Your task to perform on an android device: remove spam from my inbox in the gmail app Image 0: 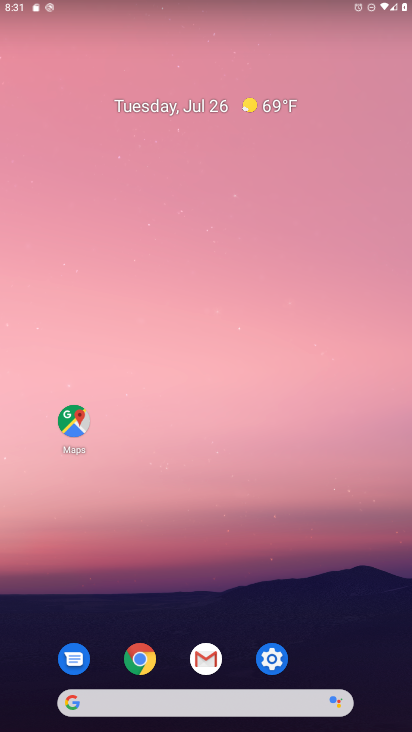
Step 0: click (196, 650)
Your task to perform on an android device: remove spam from my inbox in the gmail app Image 1: 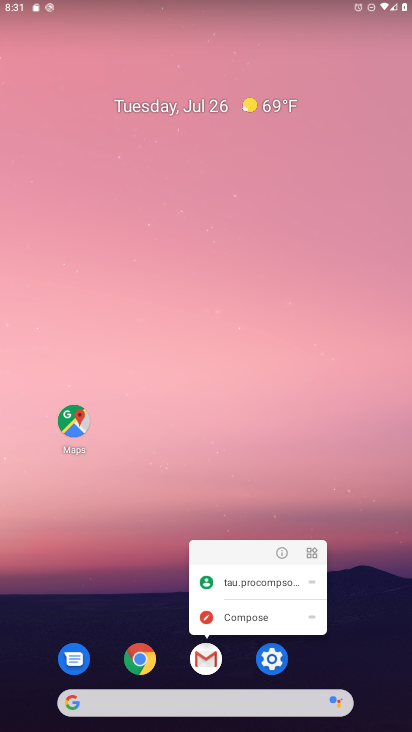
Step 1: click (206, 651)
Your task to perform on an android device: remove spam from my inbox in the gmail app Image 2: 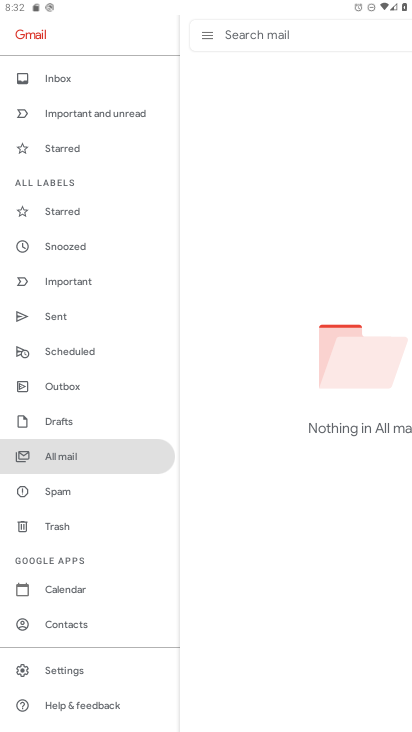
Step 2: click (64, 486)
Your task to perform on an android device: remove spam from my inbox in the gmail app Image 3: 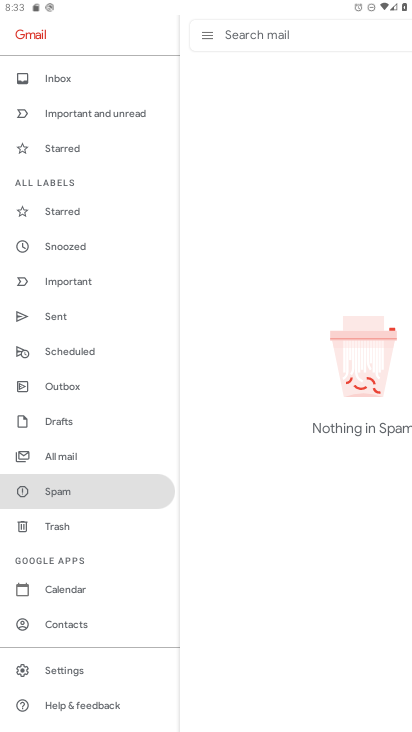
Step 3: task complete